Your task to perform on an android device: visit the assistant section in the google photos Image 0: 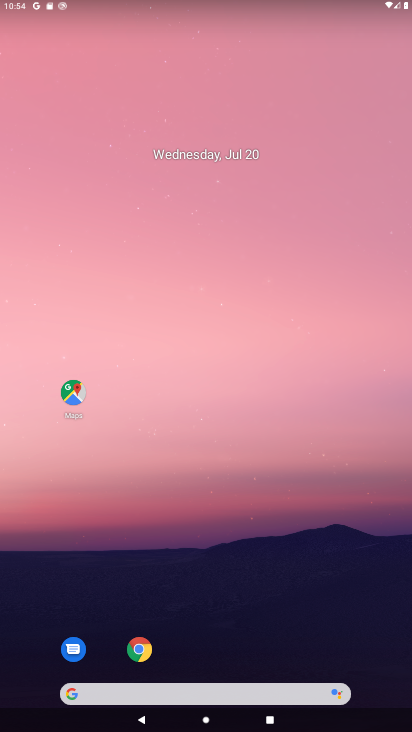
Step 0: drag from (215, 678) to (218, 211)
Your task to perform on an android device: visit the assistant section in the google photos Image 1: 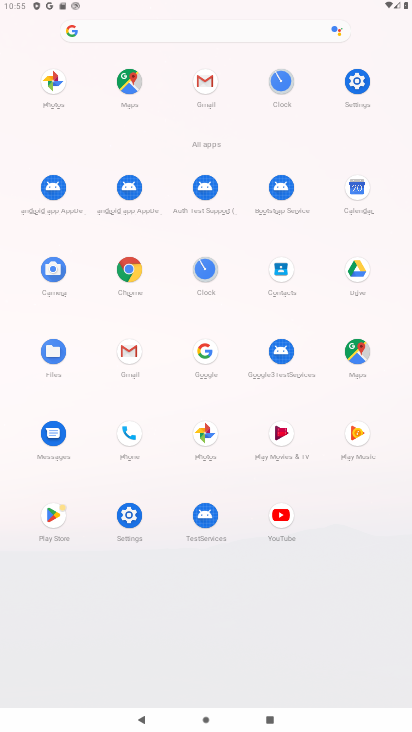
Step 1: click (200, 435)
Your task to perform on an android device: visit the assistant section in the google photos Image 2: 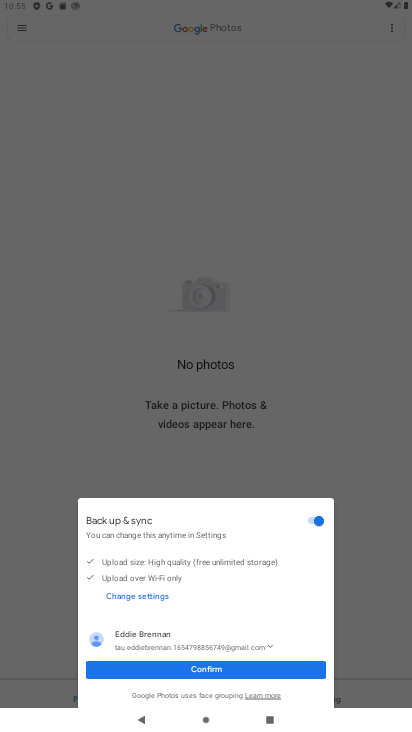
Step 2: click (236, 673)
Your task to perform on an android device: visit the assistant section in the google photos Image 3: 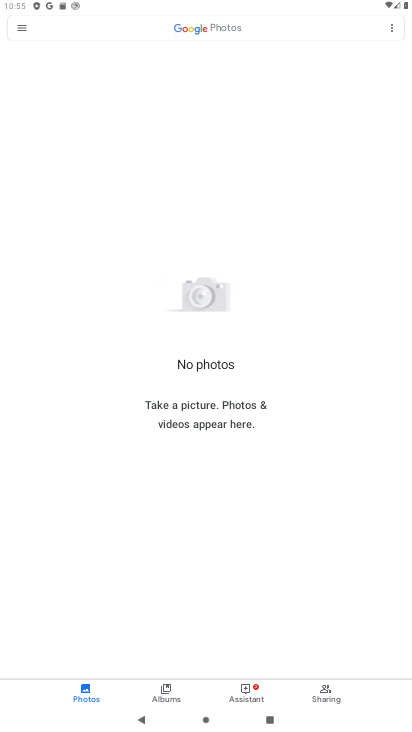
Step 3: click (249, 700)
Your task to perform on an android device: visit the assistant section in the google photos Image 4: 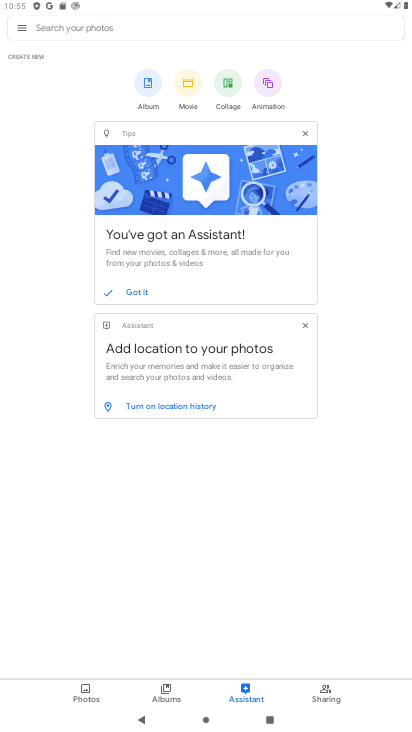
Step 4: task complete